Your task to perform on an android device: Open settings Image 0: 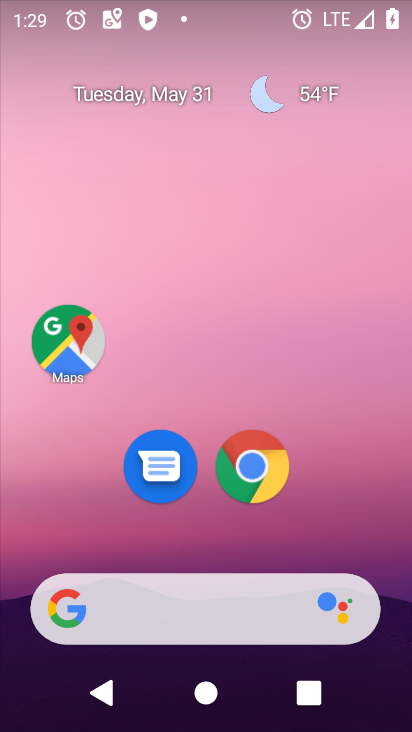
Step 0: drag from (208, 579) to (199, 63)
Your task to perform on an android device: Open settings Image 1: 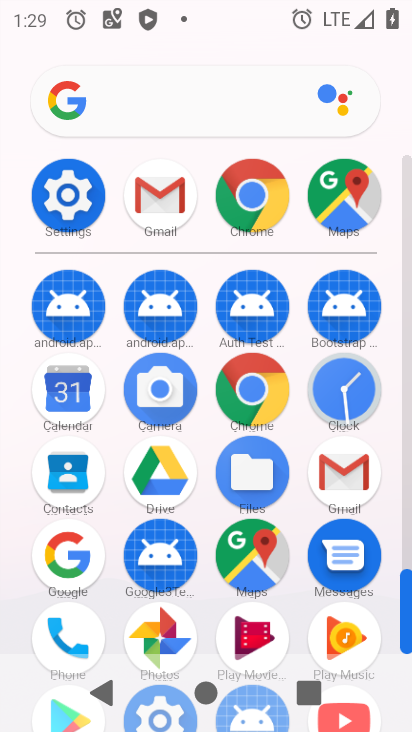
Step 1: click (91, 193)
Your task to perform on an android device: Open settings Image 2: 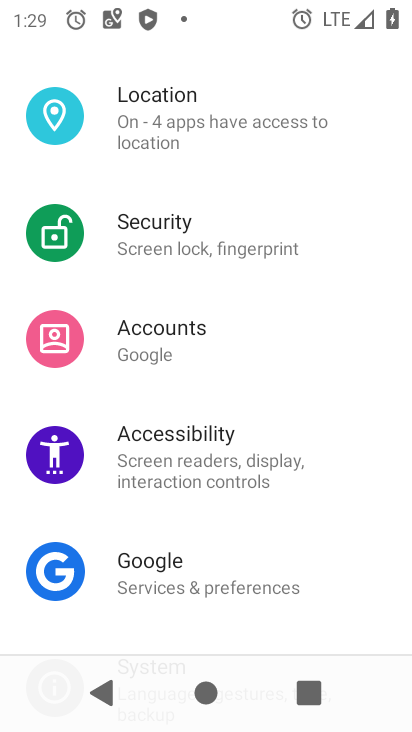
Step 2: task complete